Your task to perform on an android device: turn off javascript in the chrome app Image 0: 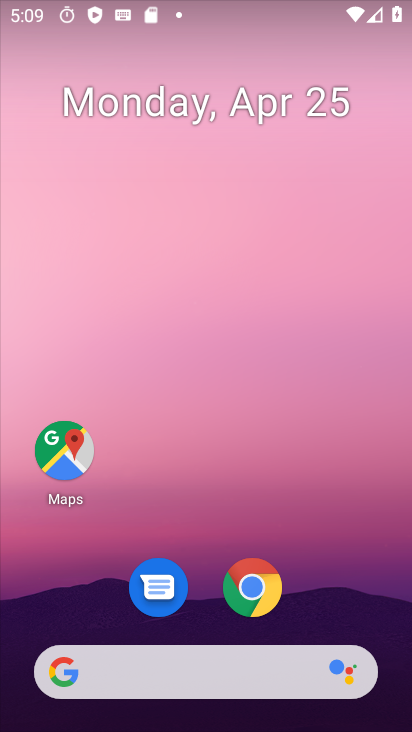
Step 0: drag from (329, 538) to (387, 67)
Your task to perform on an android device: turn off javascript in the chrome app Image 1: 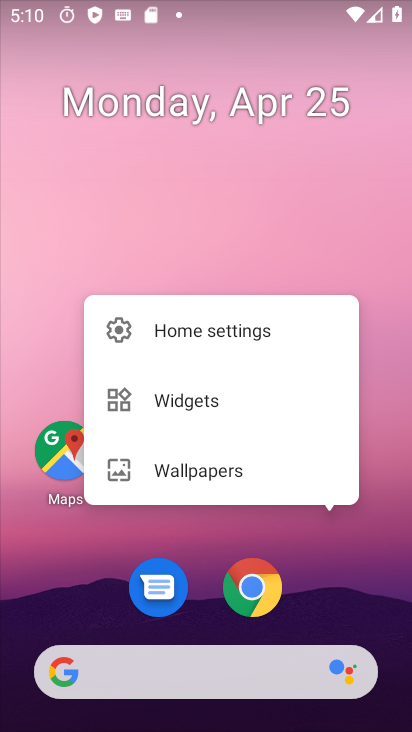
Step 1: drag from (358, 589) to (411, 110)
Your task to perform on an android device: turn off javascript in the chrome app Image 2: 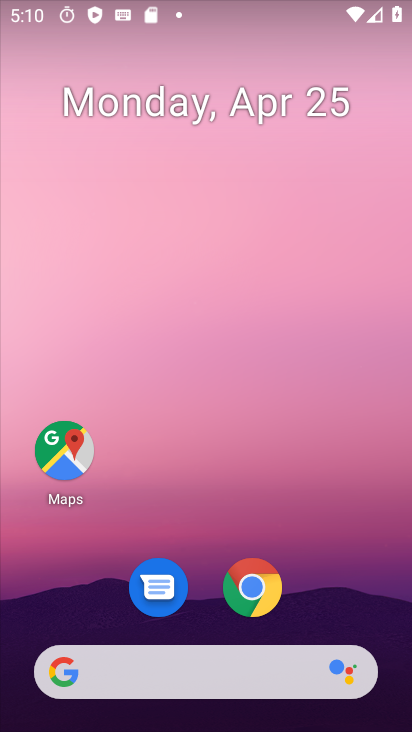
Step 2: drag from (324, 569) to (316, 127)
Your task to perform on an android device: turn off javascript in the chrome app Image 3: 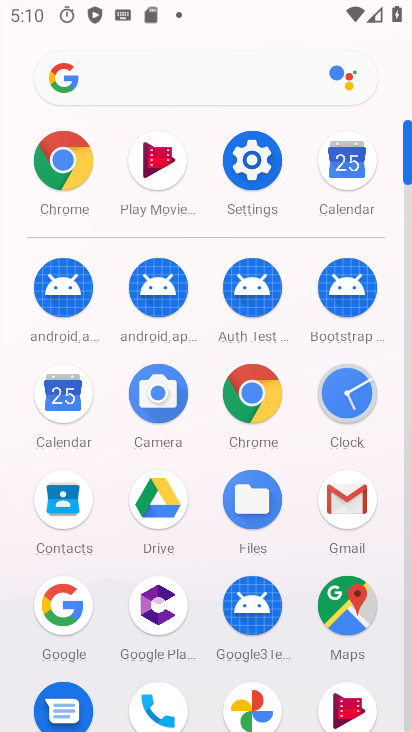
Step 3: click (231, 394)
Your task to perform on an android device: turn off javascript in the chrome app Image 4: 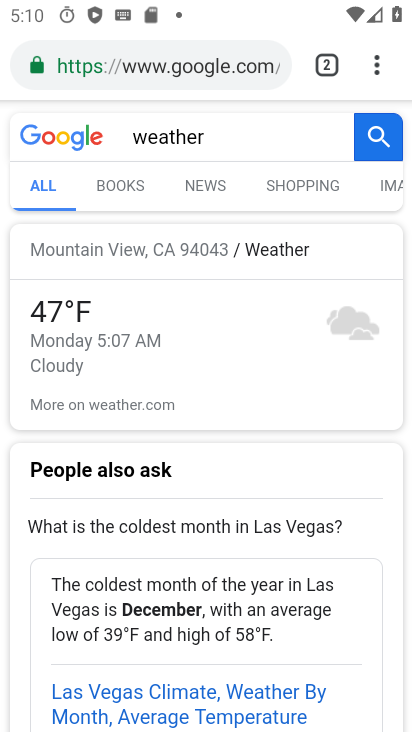
Step 4: drag from (378, 58) to (315, 570)
Your task to perform on an android device: turn off javascript in the chrome app Image 5: 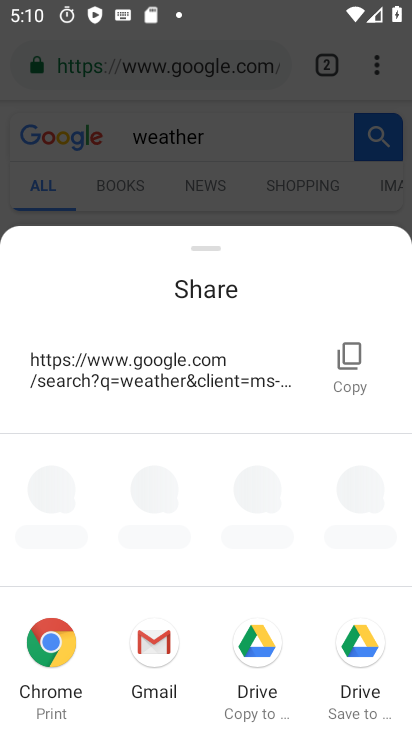
Step 5: click (384, 61)
Your task to perform on an android device: turn off javascript in the chrome app Image 6: 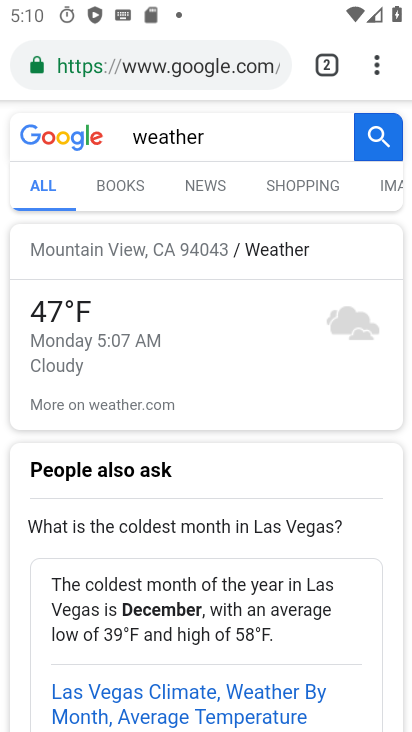
Step 6: drag from (384, 61) to (407, 435)
Your task to perform on an android device: turn off javascript in the chrome app Image 7: 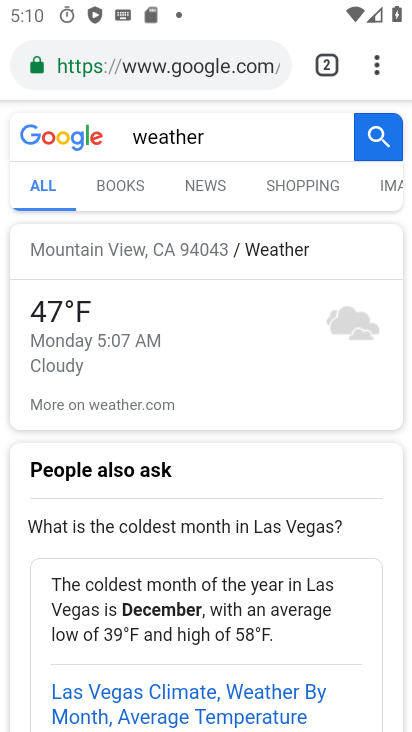
Step 7: drag from (335, 188) to (332, 315)
Your task to perform on an android device: turn off javascript in the chrome app Image 8: 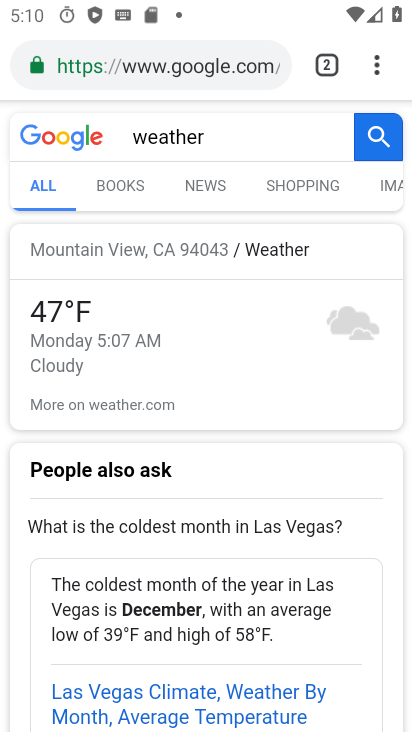
Step 8: drag from (376, 58) to (177, 635)
Your task to perform on an android device: turn off javascript in the chrome app Image 9: 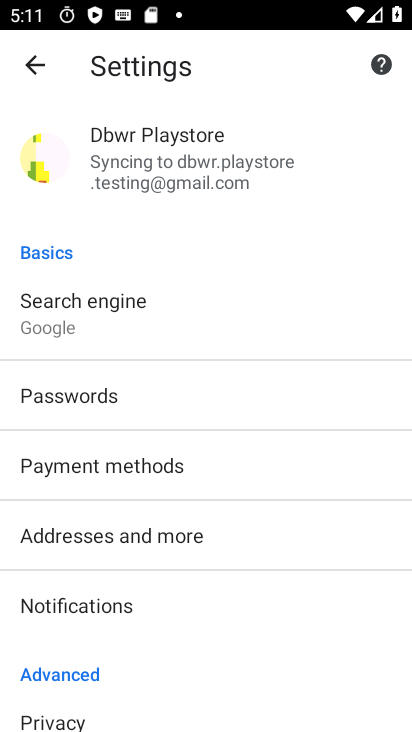
Step 9: drag from (176, 634) to (331, 198)
Your task to perform on an android device: turn off javascript in the chrome app Image 10: 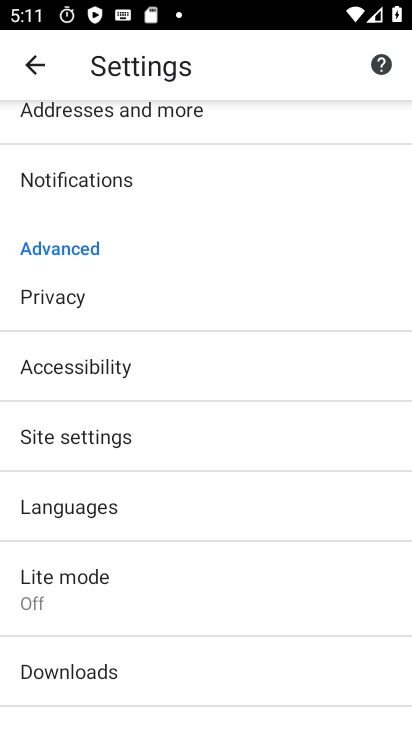
Step 10: click (72, 432)
Your task to perform on an android device: turn off javascript in the chrome app Image 11: 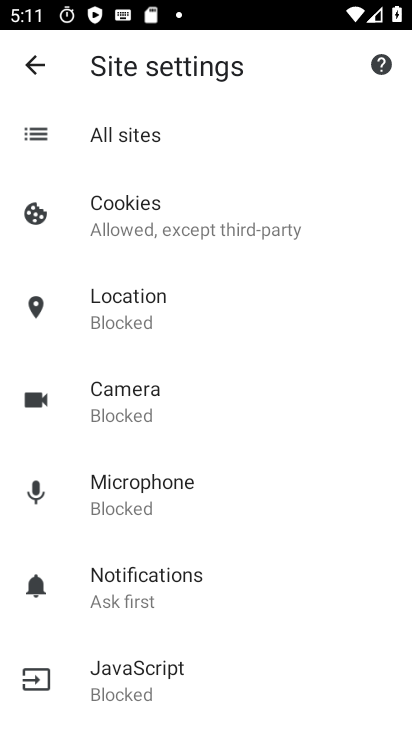
Step 11: click (118, 673)
Your task to perform on an android device: turn off javascript in the chrome app Image 12: 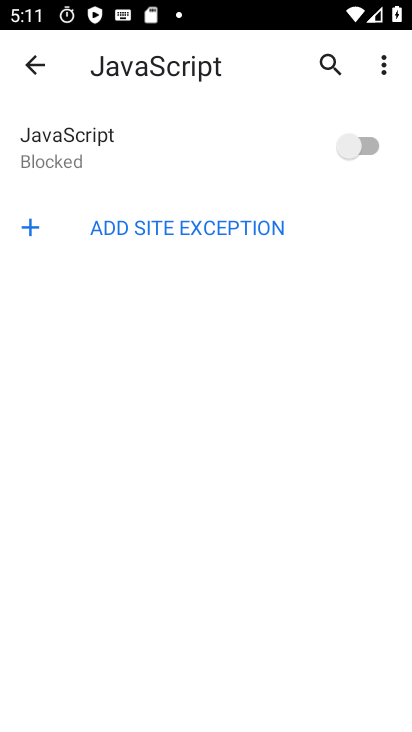
Step 12: task complete